Your task to perform on an android device: turn off location history Image 0: 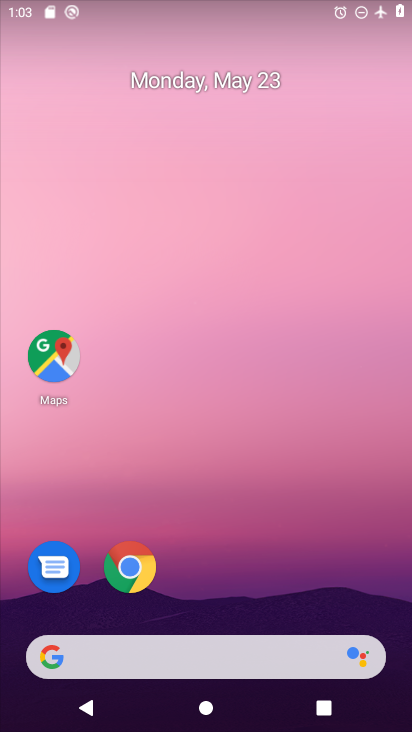
Step 0: drag from (216, 594) to (225, 204)
Your task to perform on an android device: turn off location history Image 1: 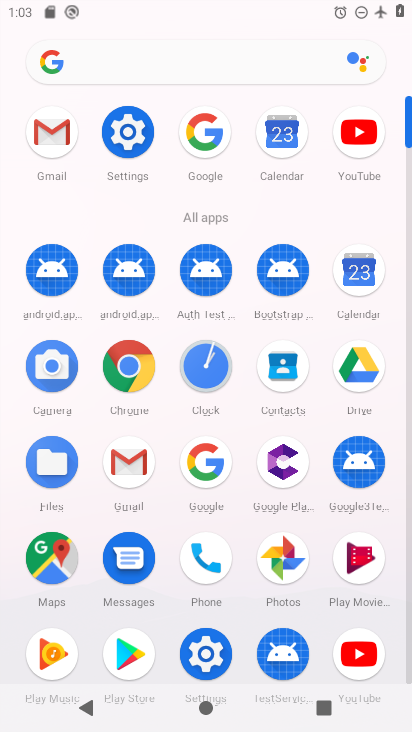
Step 1: click (142, 115)
Your task to perform on an android device: turn off location history Image 2: 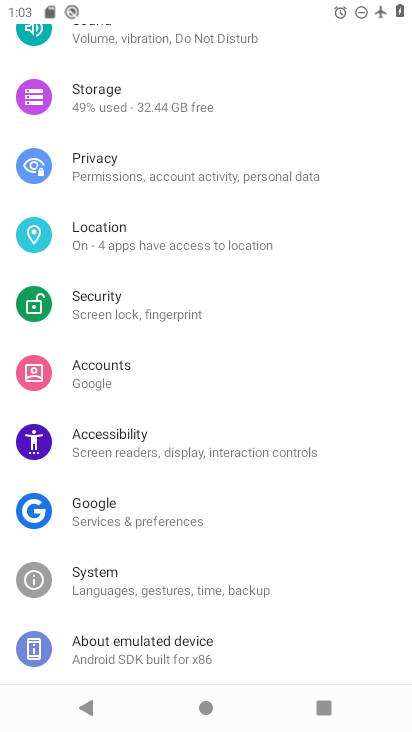
Step 2: click (141, 231)
Your task to perform on an android device: turn off location history Image 3: 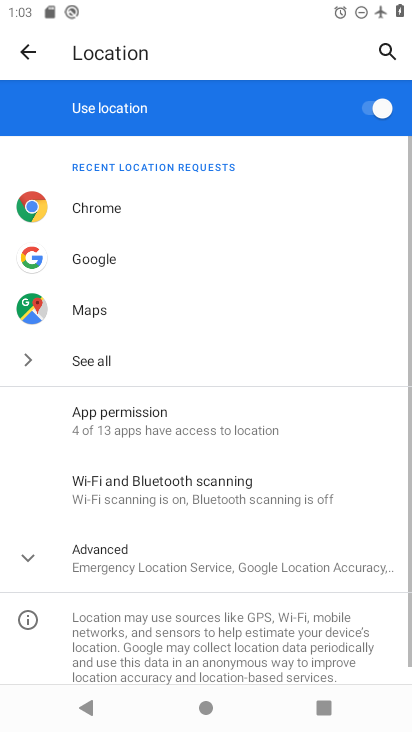
Step 3: click (178, 569)
Your task to perform on an android device: turn off location history Image 4: 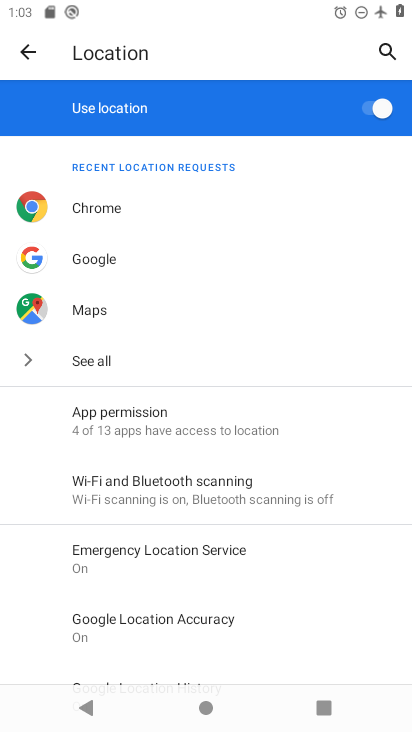
Step 4: drag from (223, 610) to (221, 424)
Your task to perform on an android device: turn off location history Image 5: 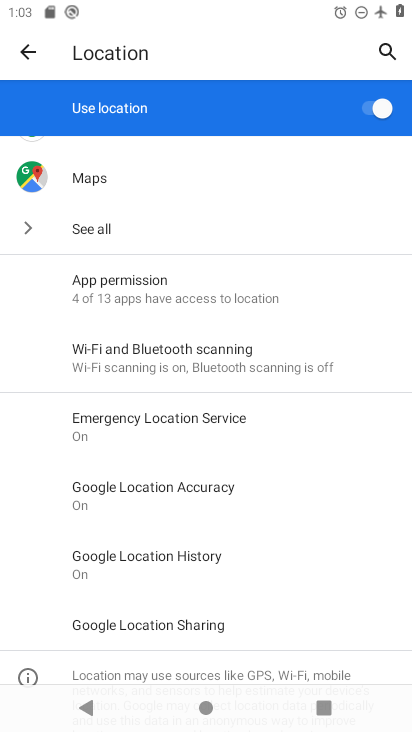
Step 5: click (206, 567)
Your task to perform on an android device: turn off location history Image 6: 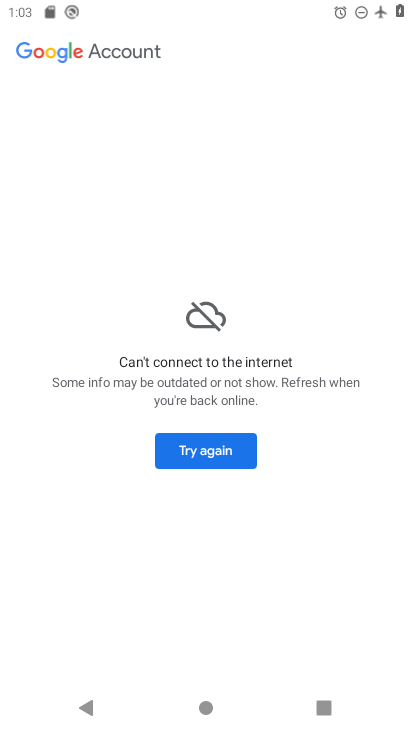
Step 6: task complete